Your task to perform on an android device: turn off notifications settings in the gmail app Image 0: 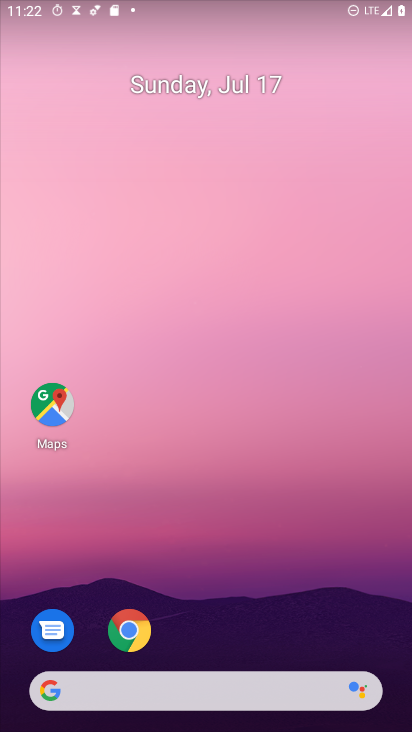
Step 0: drag from (202, 690) to (149, 27)
Your task to perform on an android device: turn off notifications settings in the gmail app Image 1: 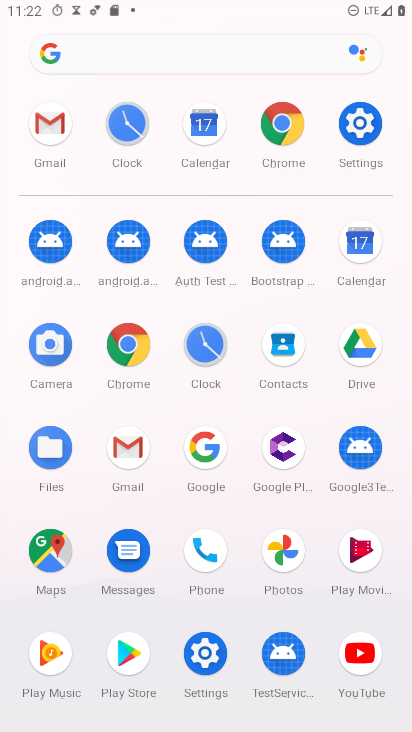
Step 1: click (129, 454)
Your task to perform on an android device: turn off notifications settings in the gmail app Image 2: 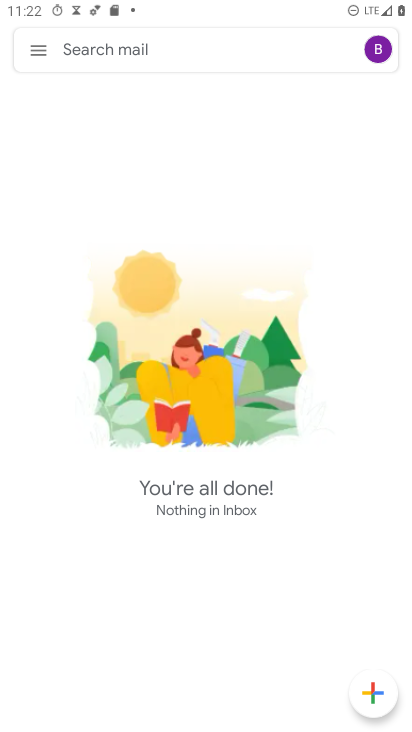
Step 2: click (37, 48)
Your task to perform on an android device: turn off notifications settings in the gmail app Image 3: 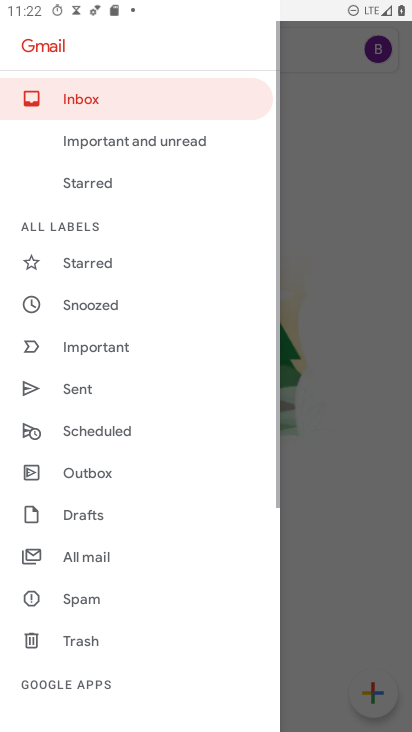
Step 3: drag from (78, 698) to (101, 222)
Your task to perform on an android device: turn off notifications settings in the gmail app Image 4: 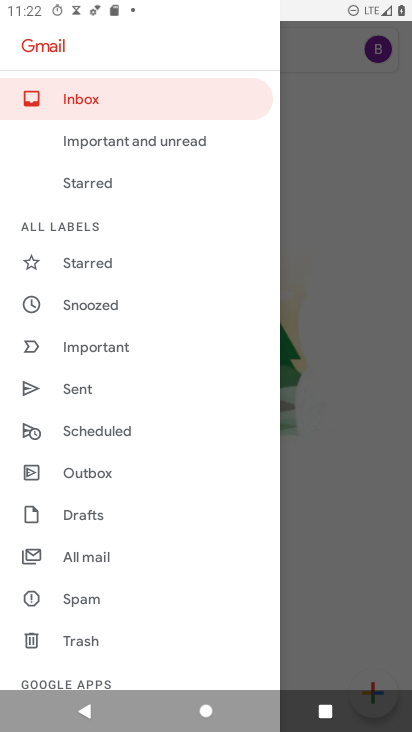
Step 4: drag from (93, 606) to (15, 96)
Your task to perform on an android device: turn off notifications settings in the gmail app Image 5: 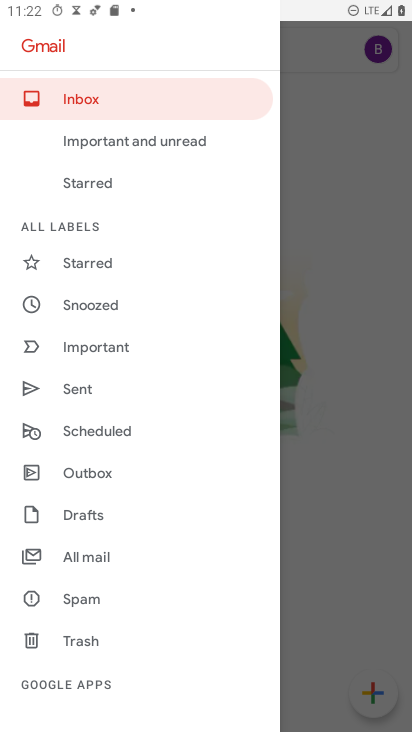
Step 5: drag from (78, 605) to (107, 74)
Your task to perform on an android device: turn off notifications settings in the gmail app Image 6: 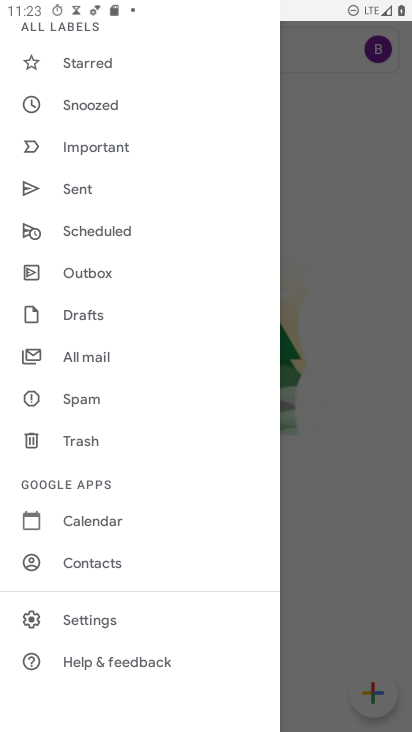
Step 6: click (104, 621)
Your task to perform on an android device: turn off notifications settings in the gmail app Image 7: 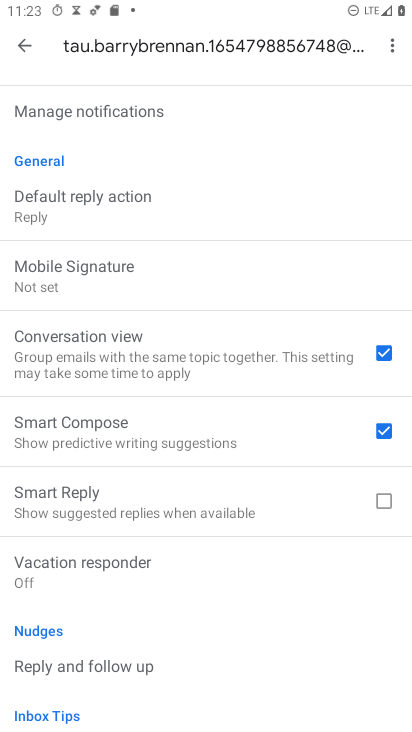
Step 7: click (86, 110)
Your task to perform on an android device: turn off notifications settings in the gmail app Image 8: 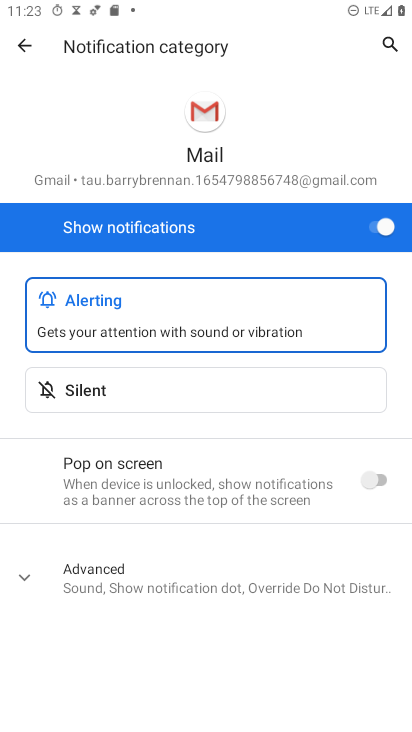
Step 8: click (382, 226)
Your task to perform on an android device: turn off notifications settings in the gmail app Image 9: 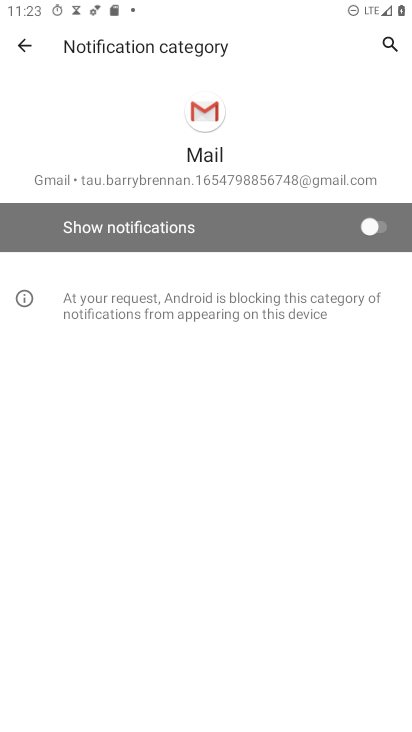
Step 9: task complete